Your task to perform on an android device: Search for sushi restaurants on Maps Image 0: 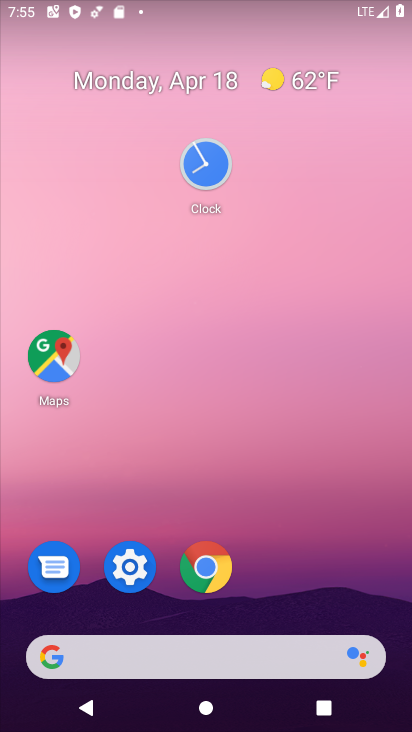
Step 0: click (57, 372)
Your task to perform on an android device: Search for sushi restaurants on Maps Image 1: 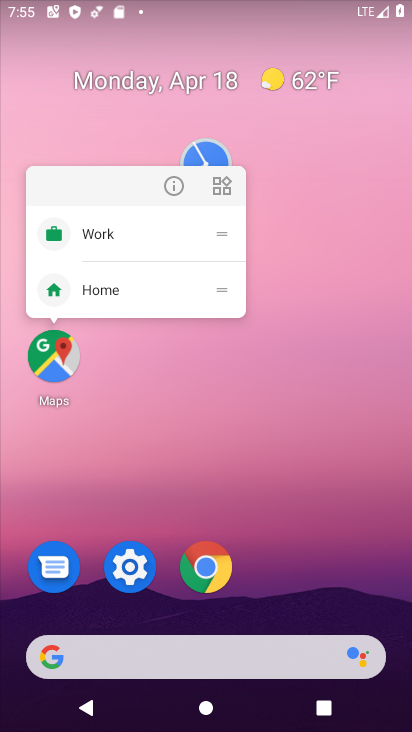
Step 1: click (45, 371)
Your task to perform on an android device: Search for sushi restaurants on Maps Image 2: 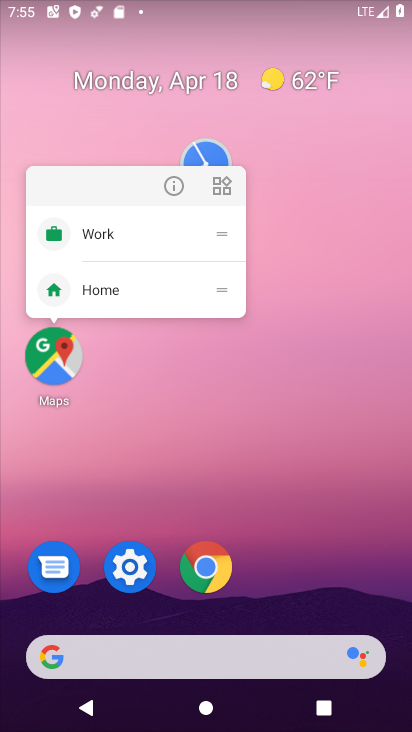
Step 2: click (45, 371)
Your task to perform on an android device: Search for sushi restaurants on Maps Image 3: 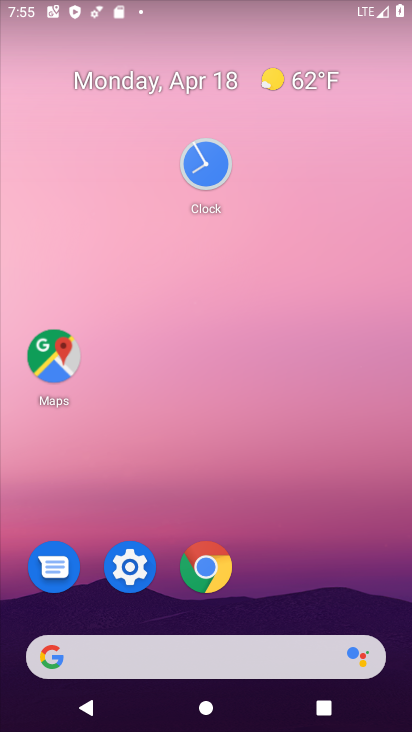
Step 3: click (45, 371)
Your task to perform on an android device: Search for sushi restaurants on Maps Image 4: 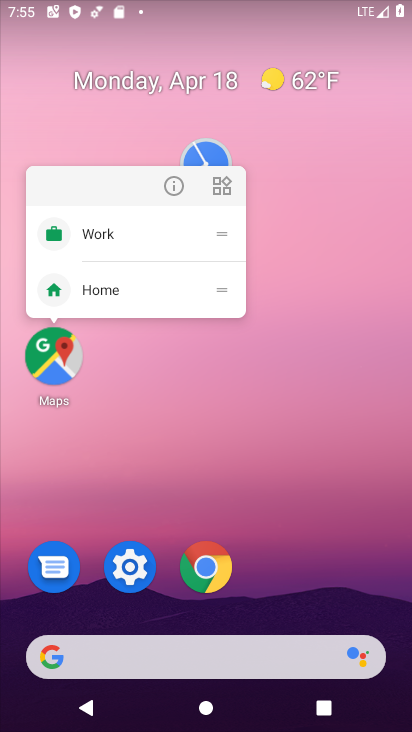
Step 4: click (45, 371)
Your task to perform on an android device: Search for sushi restaurants on Maps Image 5: 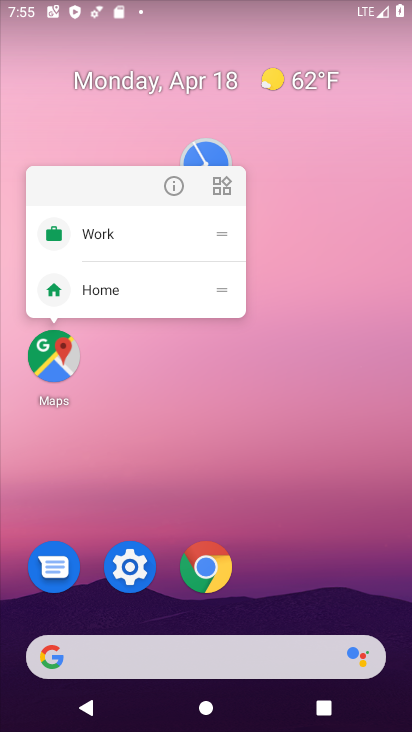
Step 5: click (60, 354)
Your task to perform on an android device: Search for sushi restaurants on Maps Image 6: 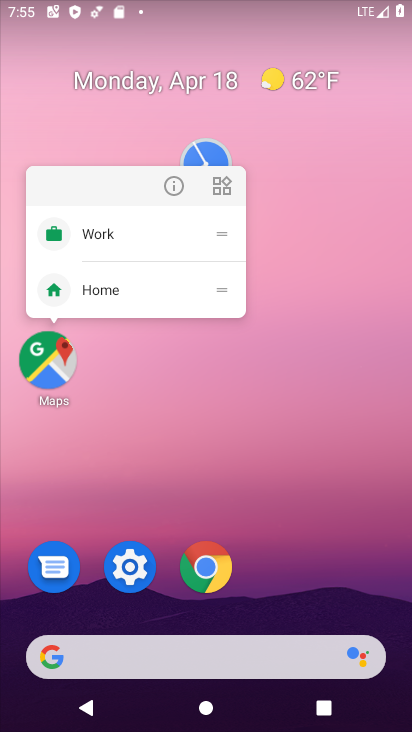
Step 6: click (54, 358)
Your task to perform on an android device: Search for sushi restaurants on Maps Image 7: 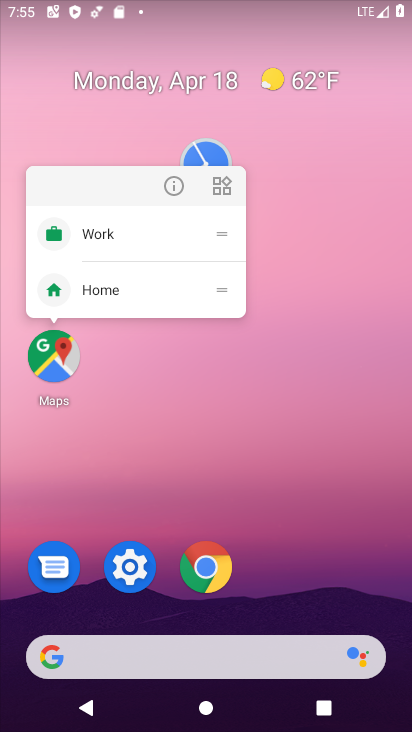
Step 7: click (54, 358)
Your task to perform on an android device: Search for sushi restaurants on Maps Image 8: 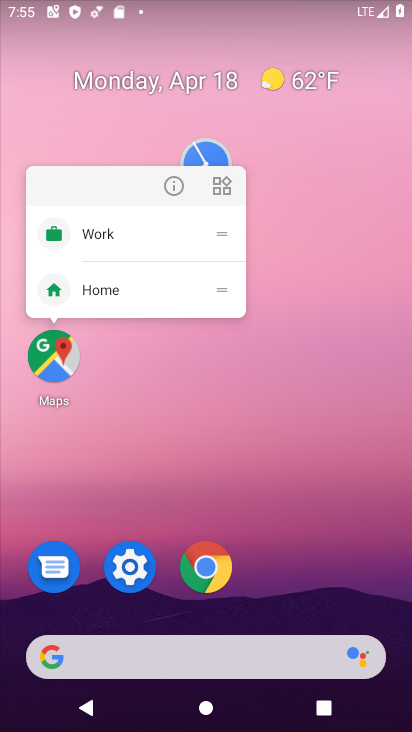
Step 8: click (42, 361)
Your task to perform on an android device: Search for sushi restaurants on Maps Image 9: 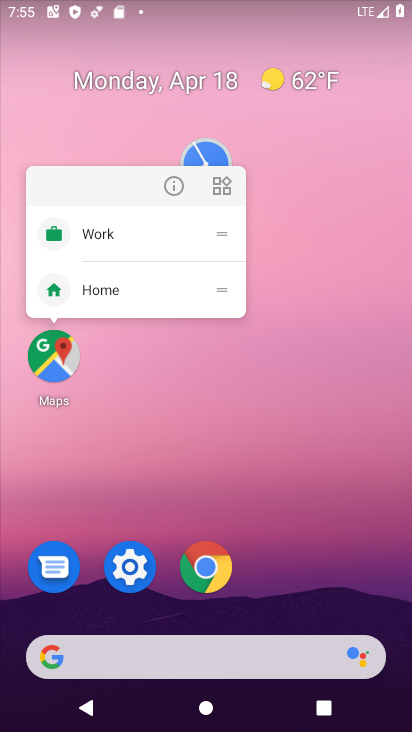
Step 9: click (42, 361)
Your task to perform on an android device: Search for sushi restaurants on Maps Image 10: 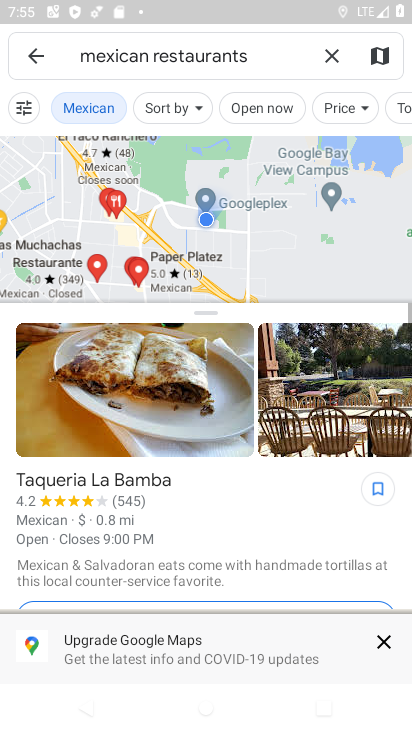
Step 10: click (331, 60)
Your task to perform on an android device: Search for sushi restaurants on Maps Image 11: 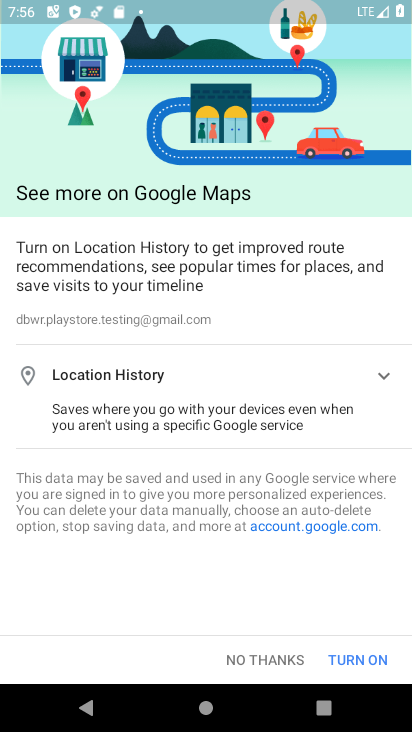
Step 11: press back button
Your task to perform on an android device: Search for sushi restaurants on Maps Image 12: 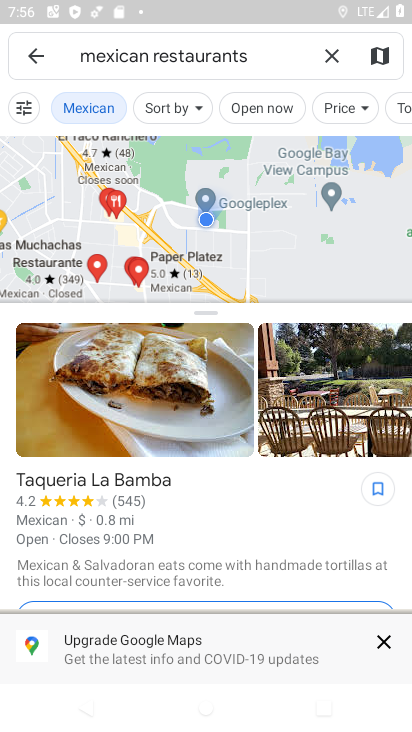
Step 12: click (36, 58)
Your task to perform on an android device: Search for sushi restaurants on Maps Image 13: 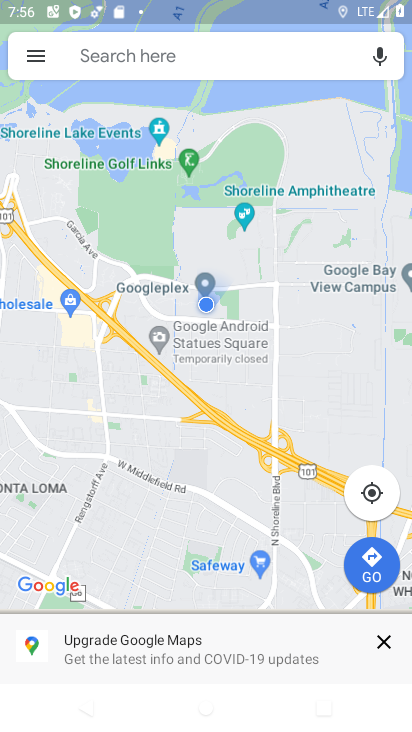
Step 13: type "sushi restaurants"
Your task to perform on an android device: Search for sushi restaurants on Maps Image 14: 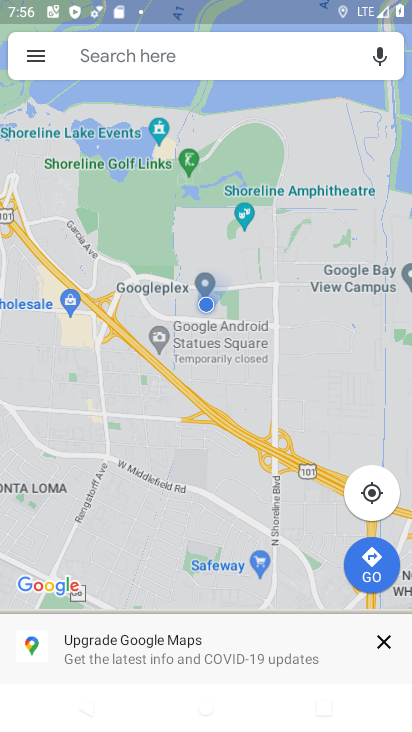
Step 14: type "sushi restaurants"
Your task to perform on an android device: Search for sushi restaurants on Maps Image 15: 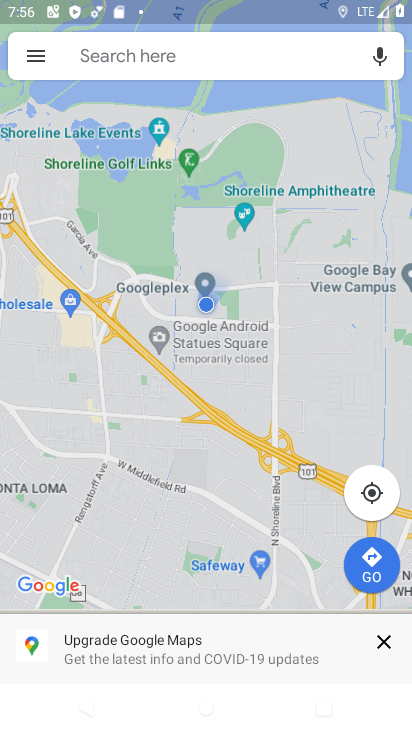
Step 15: click (92, 51)
Your task to perform on an android device: Search for sushi restaurants on Maps Image 16: 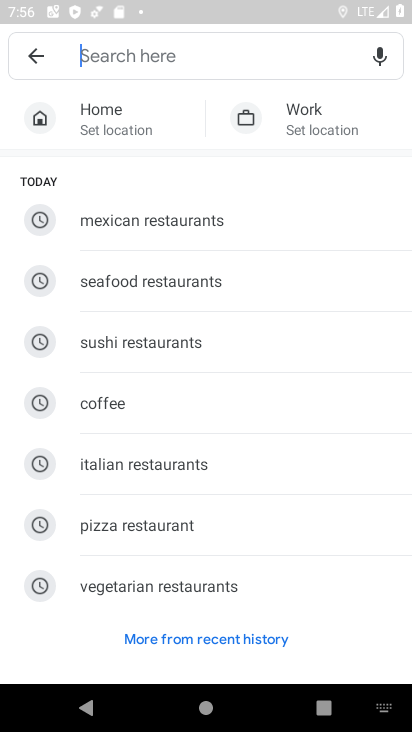
Step 16: type "sushi restaurants"
Your task to perform on an android device: Search for sushi restaurants on Maps Image 17: 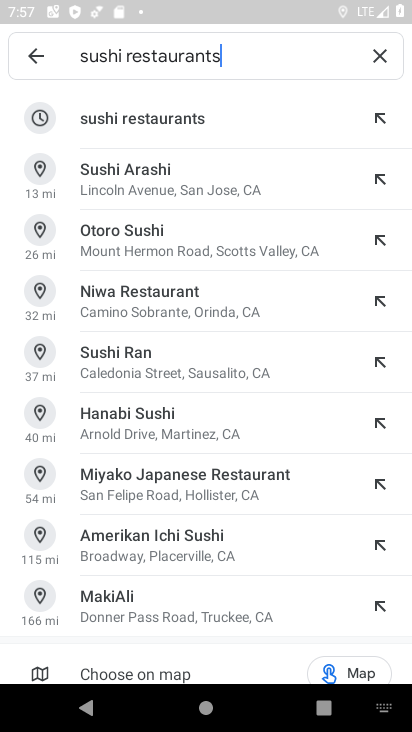
Step 17: click (192, 118)
Your task to perform on an android device: Search for sushi restaurants on Maps Image 18: 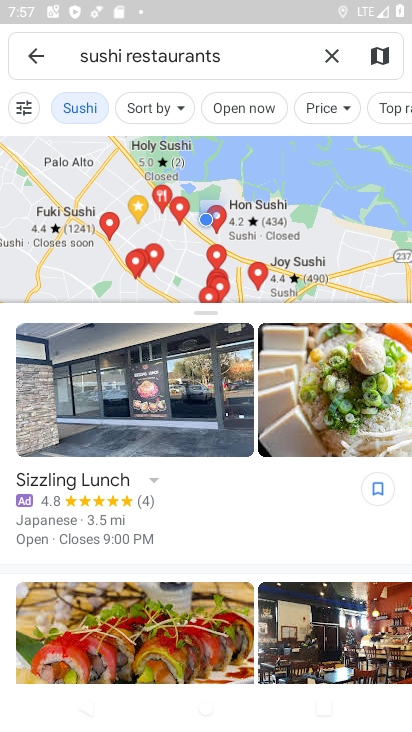
Step 18: task complete